Your task to perform on an android device: turn on translation in the chrome app Image 0: 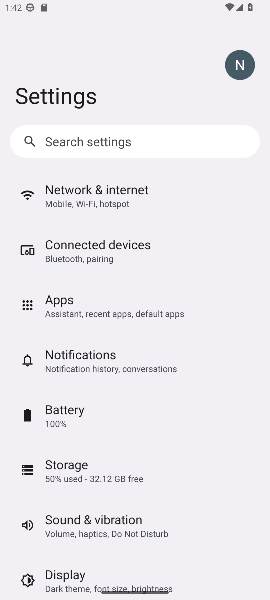
Step 0: press home button
Your task to perform on an android device: turn on translation in the chrome app Image 1: 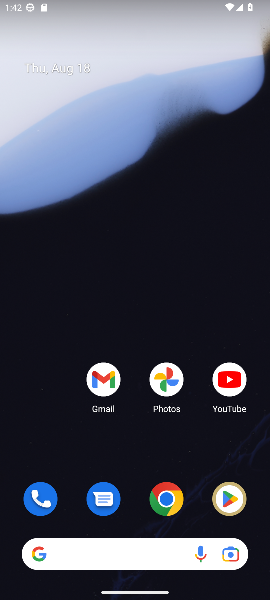
Step 1: click (166, 499)
Your task to perform on an android device: turn on translation in the chrome app Image 2: 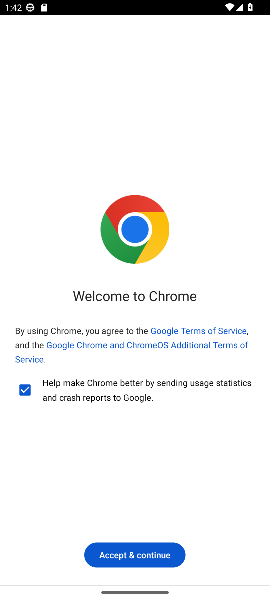
Step 2: click (133, 554)
Your task to perform on an android device: turn on translation in the chrome app Image 3: 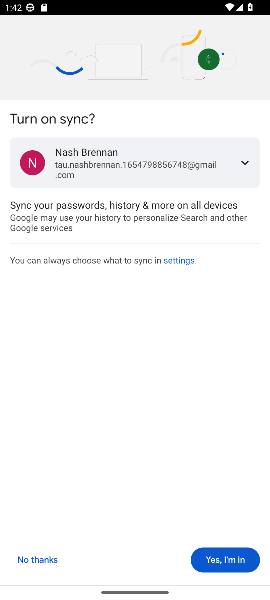
Step 3: click (225, 560)
Your task to perform on an android device: turn on translation in the chrome app Image 4: 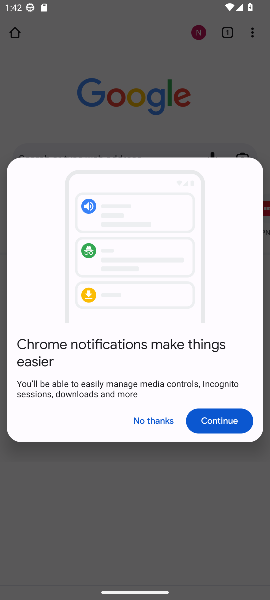
Step 4: click (222, 422)
Your task to perform on an android device: turn on translation in the chrome app Image 5: 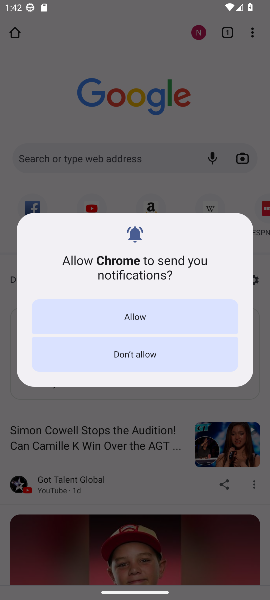
Step 5: click (137, 315)
Your task to perform on an android device: turn on translation in the chrome app Image 6: 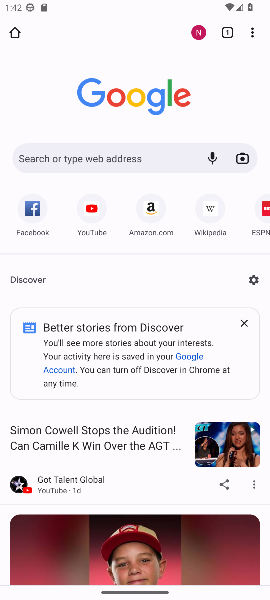
Step 6: click (246, 30)
Your task to perform on an android device: turn on translation in the chrome app Image 7: 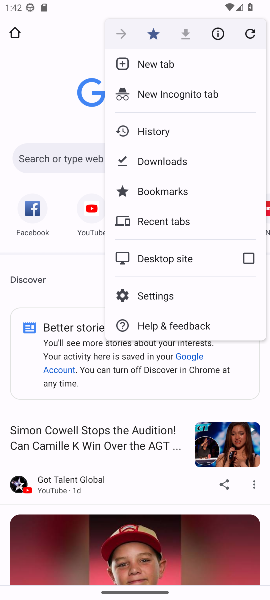
Step 7: click (154, 296)
Your task to perform on an android device: turn on translation in the chrome app Image 8: 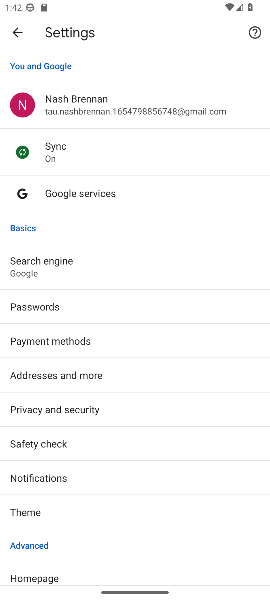
Step 8: drag from (125, 501) to (123, 284)
Your task to perform on an android device: turn on translation in the chrome app Image 9: 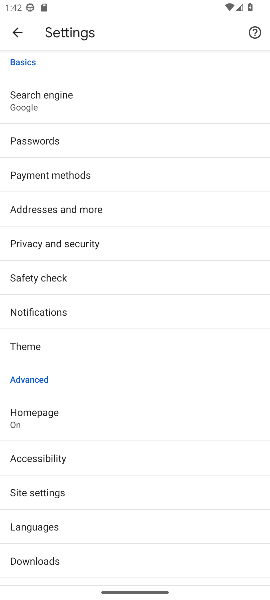
Step 9: click (40, 522)
Your task to perform on an android device: turn on translation in the chrome app Image 10: 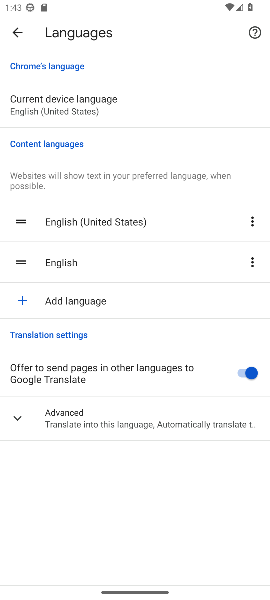
Step 10: task complete